Your task to perform on an android device: see tabs open on other devices in the chrome app Image 0: 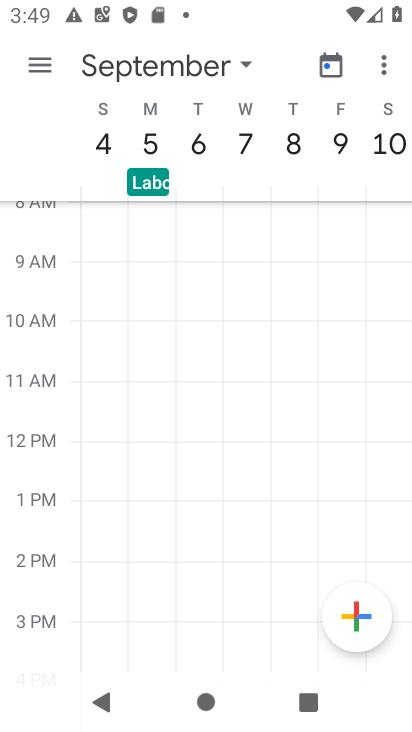
Step 0: press home button
Your task to perform on an android device: see tabs open on other devices in the chrome app Image 1: 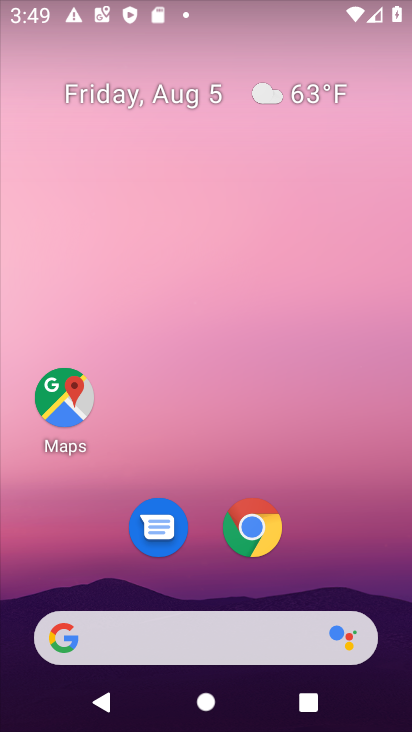
Step 1: drag from (218, 579) to (215, 209)
Your task to perform on an android device: see tabs open on other devices in the chrome app Image 2: 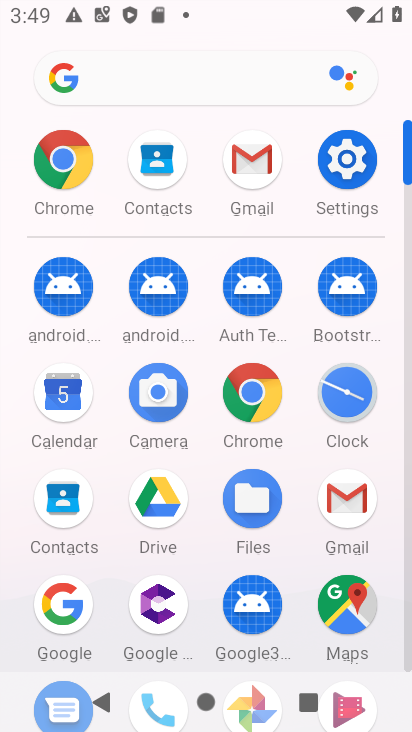
Step 2: click (252, 393)
Your task to perform on an android device: see tabs open on other devices in the chrome app Image 3: 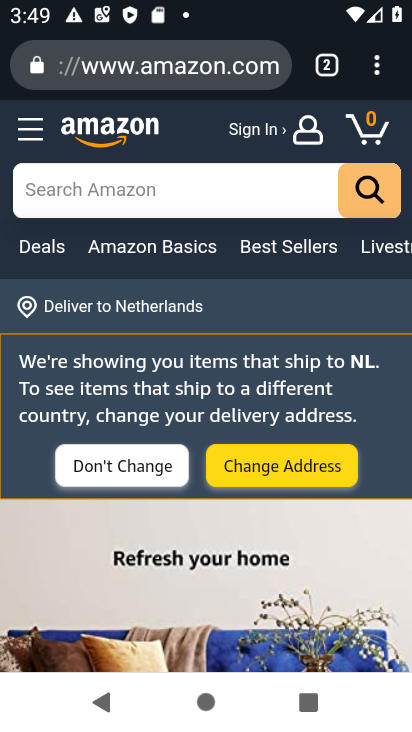
Step 3: click (377, 74)
Your task to perform on an android device: see tabs open on other devices in the chrome app Image 4: 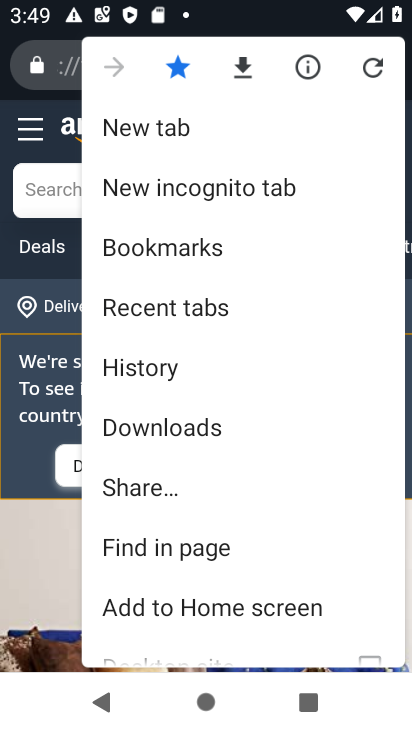
Step 4: click (163, 305)
Your task to perform on an android device: see tabs open on other devices in the chrome app Image 5: 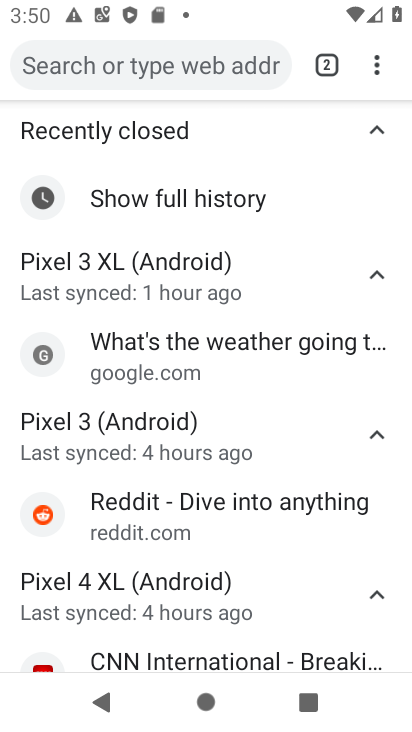
Step 5: task complete